Your task to perform on an android device: Open the calendar app, open the side menu, and click the "Day" option Image 0: 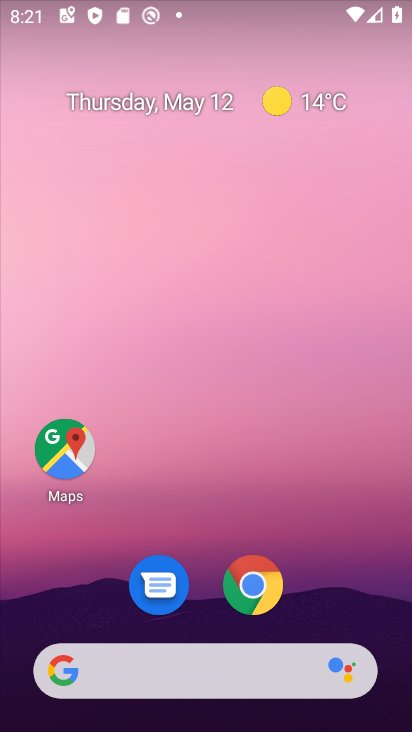
Step 0: drag from (212, 402) to (186, 73)
Your task to perform on an android device: Open the calendar app, open the side menu, and click the "Day" option Image 1: 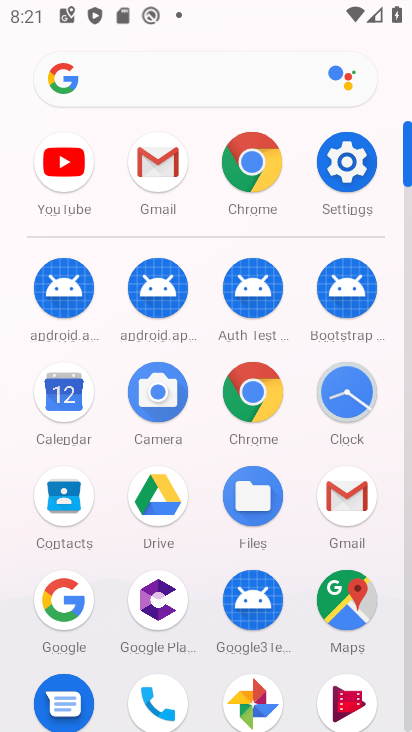
Step 1: click (71, 397)
Your task to perform on an android device: Open the calendar app, open the side menu, and click the "Day" option Image 2: 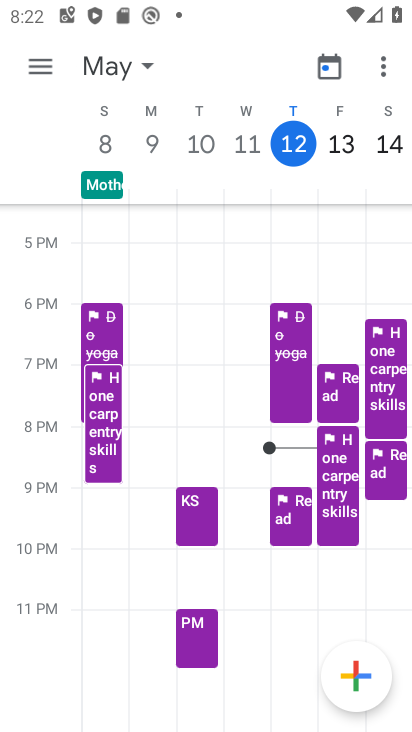
Step 2: click (40, 62)
Your task to perform on an android device: Open the calendar app, open the side menu, and click the "Day" option Image 3: 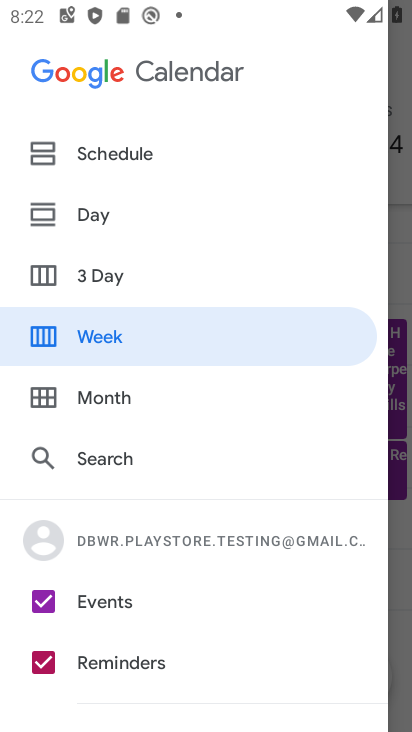
Step 3: click (91, 205)
Your task to perform on an android device: Open the calendar app, open the side menu, and click the "Day" option Image 4: 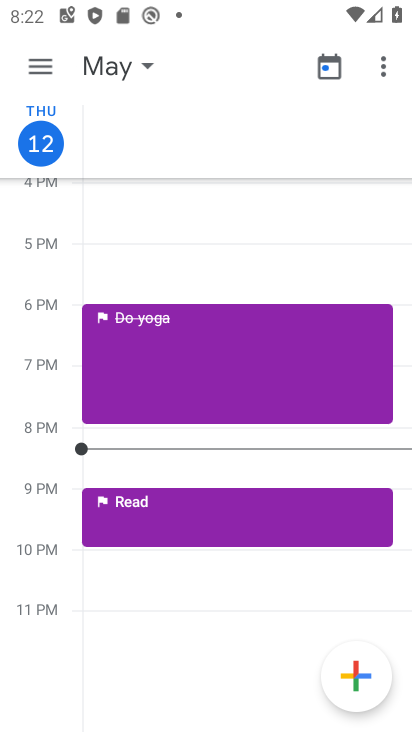
Step 4: task complete